Your task to perform on an android device: Open wifi settings Image 0: 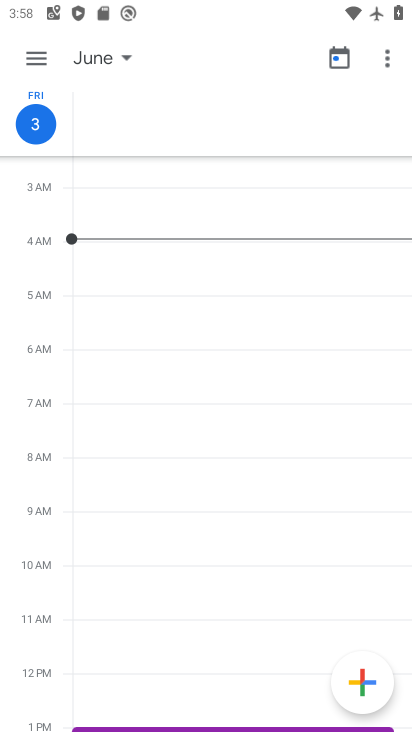
Step 0: press home button
Your task to perform on an android device: Open wifi settings Image 1: 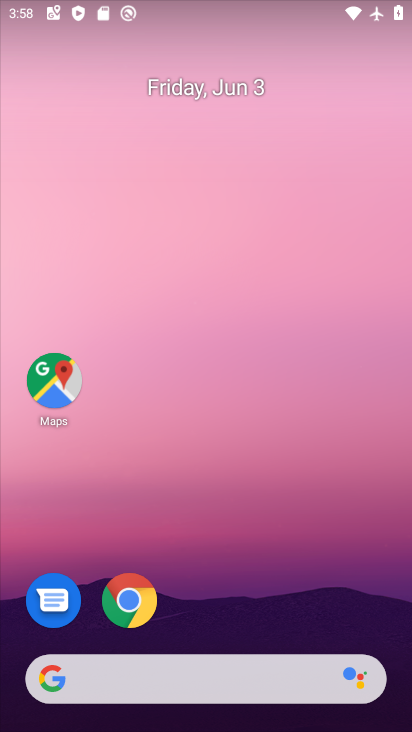
Step 1: drag from (214, 614) to (285, 7)
Your task to perform on an android device: Open wifi settings Image 2: 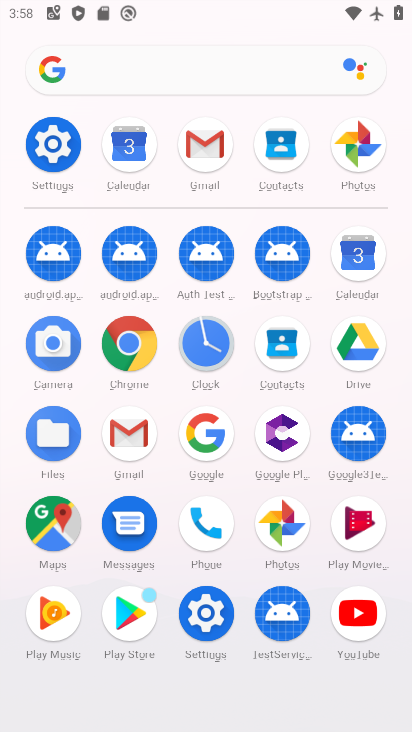
Step 2: click (60, 174)
Your task to perform on an android device: Open wifi settings Image 3: 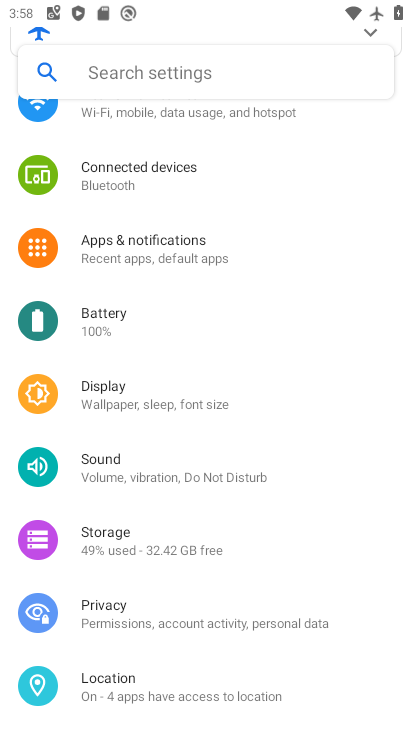
Step 3: drag from (242, 169) to (244, 429)
Your task to perform on an android device: Open wifi settings Image 4: 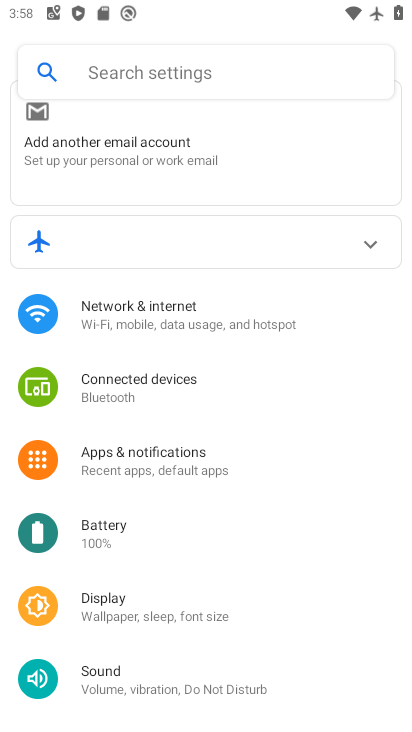
Step 4: click (223, 326)
Your task to perform on an android device: Open wifi settings Image 5: 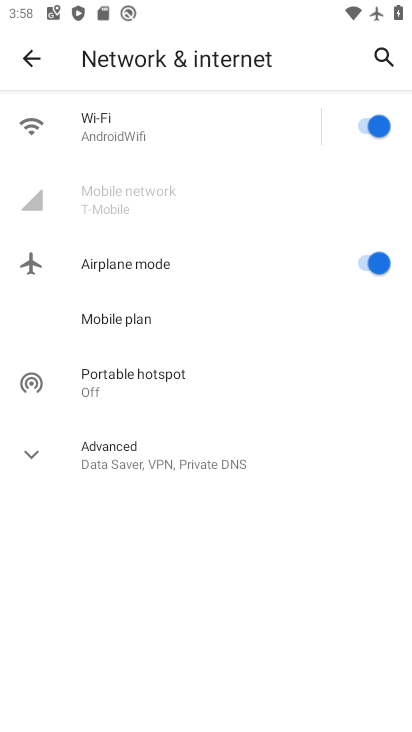
Step 5: click (139, 131)
Your task to perform on an android device: Open wifi settings Image 6: 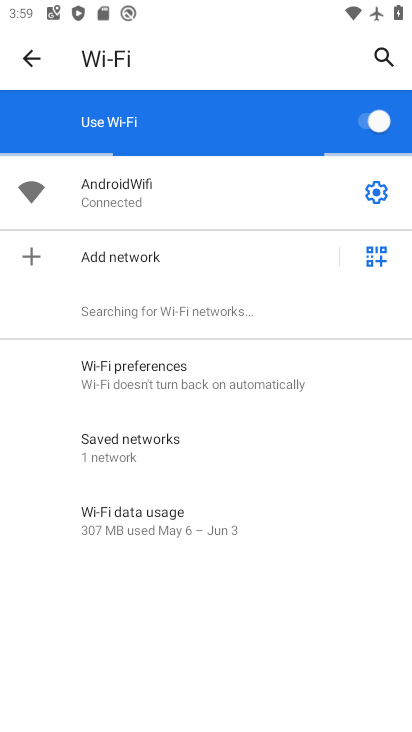
Step 6: task complete